Your task to perform on an android device: open app "VLC for Android" (install if not already installed) and enter user name: "Yves@outlook.com" and password: "internally" Image 0: 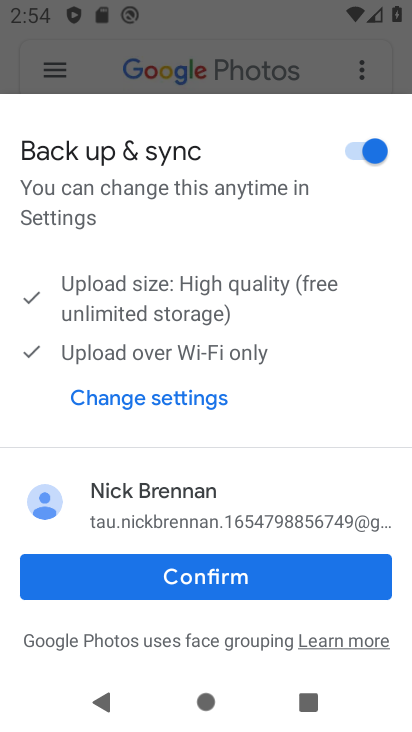
Step 0: task complete